Your task to perform on an android device: turn off translation in the chrome app Image 0: 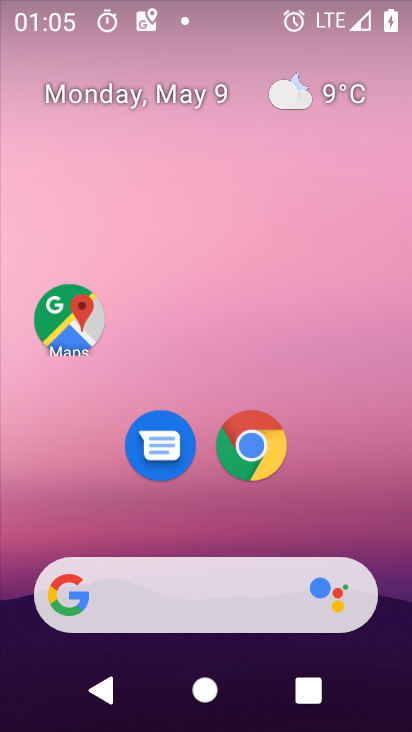
Step 0: click (257, 456)
Your task to perform on an android device: turn off translation in the chrome app Image 1: 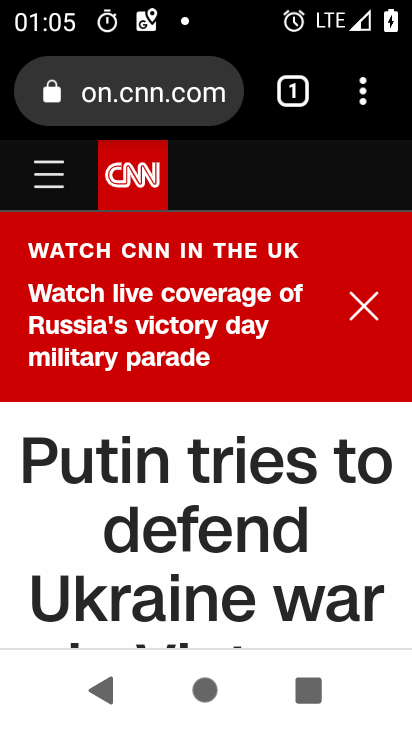
Step 1: drag from (365, 96) to (92, 486)
Your task to perform on an android device: turn off translation in the chrome app Image 2: 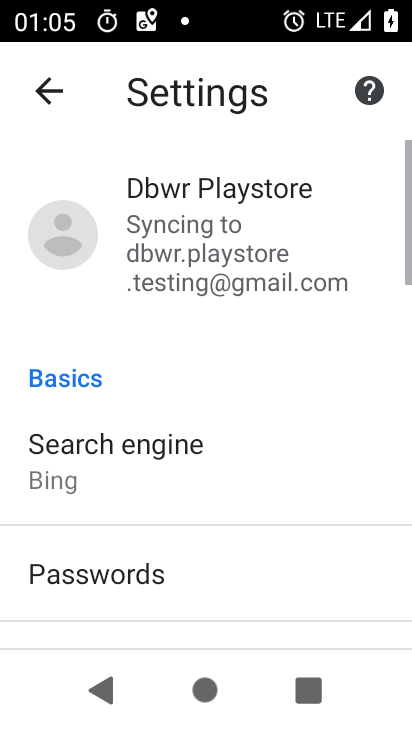
Step 2: drag from (201, 563) to (187, 184)
Your task to perform on an android device: turn off translation in the chrome app Image 3: 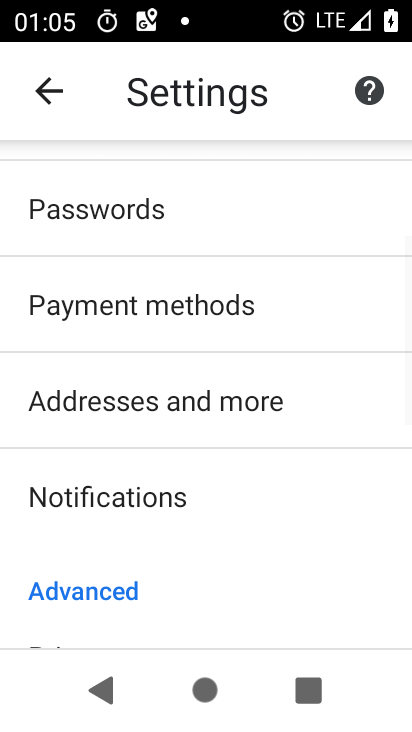
Step 3: drag from (222, 540) to (195, 187)
Your task to perform on an android device: turn off translation in the chrome app Image 4: 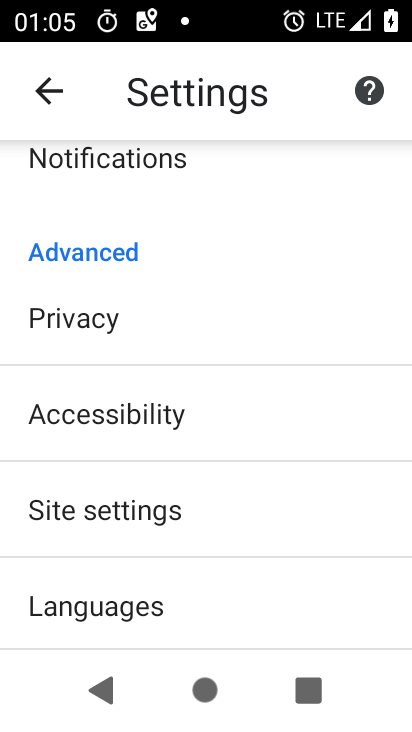
Step 4: click (109, 617)
Your task to perform on an android device: turn off translation in the chrome app Image 5: 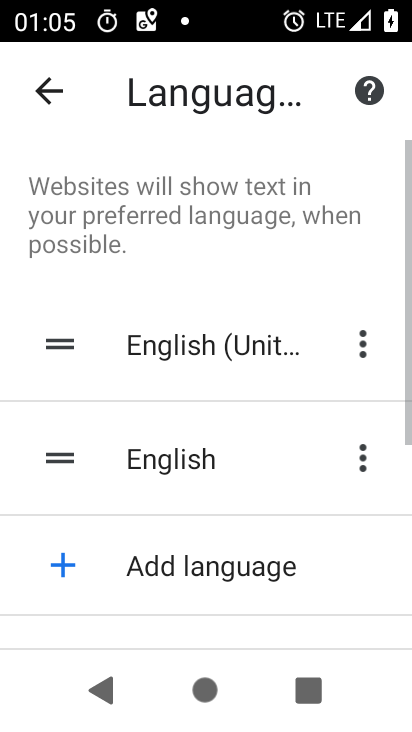
Step 5: drag from (192, 568) to (194, 207)
Your task to perform on an android device: turn off translation in the chrome app Image 6: 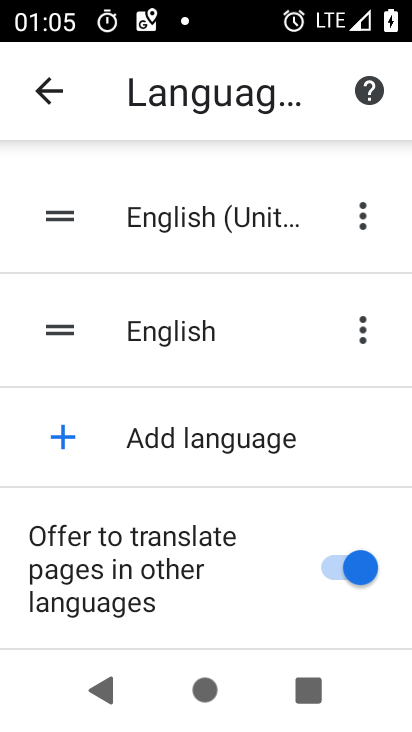
Step 6: click (351, 574)
Your task to perform on an android device: turn off translation in the chrome app Image 7: 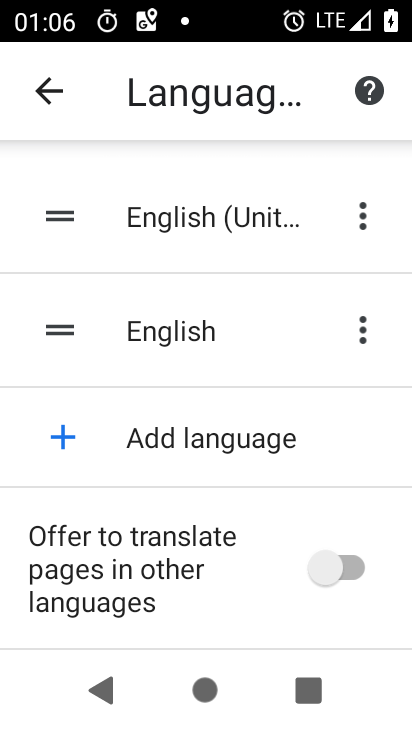
Step 7: task complete